Your task to perform on an android device: What time is it in Los Angeles? Image 0: 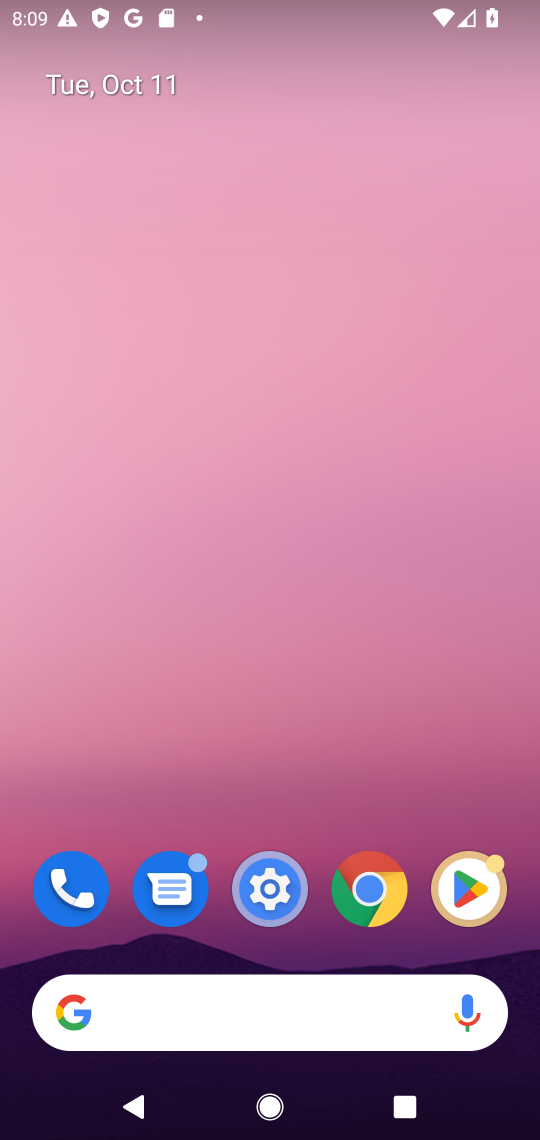
Step 0: click (263, 1008)
Your task to perform on an android device: What time is it in Los Angeles? Image 1: 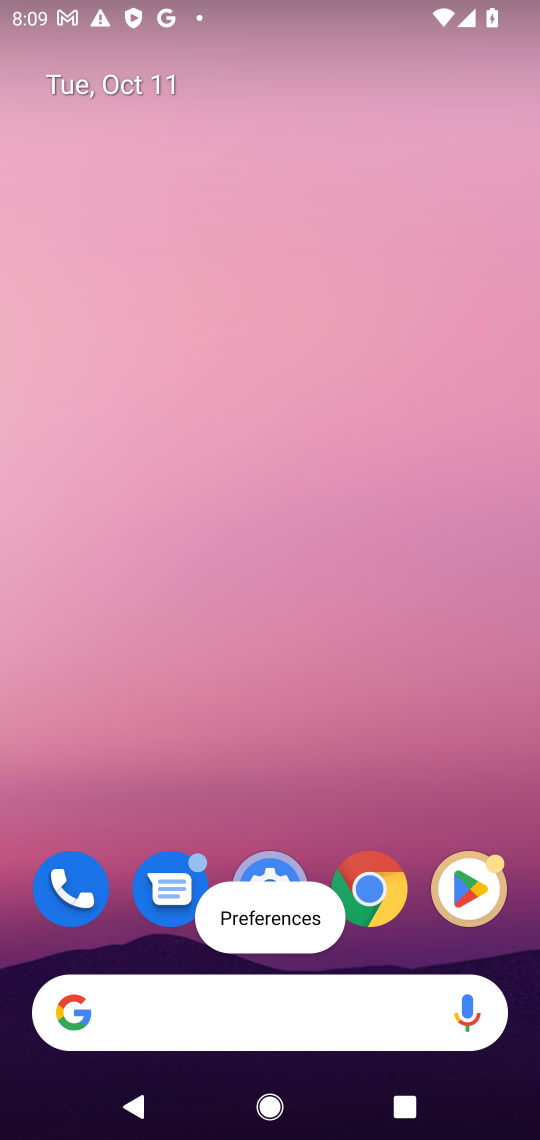
Step 1: click (145, 1053)
Your task to perform on an android device: What time is it in Los Angeles? Image 2: 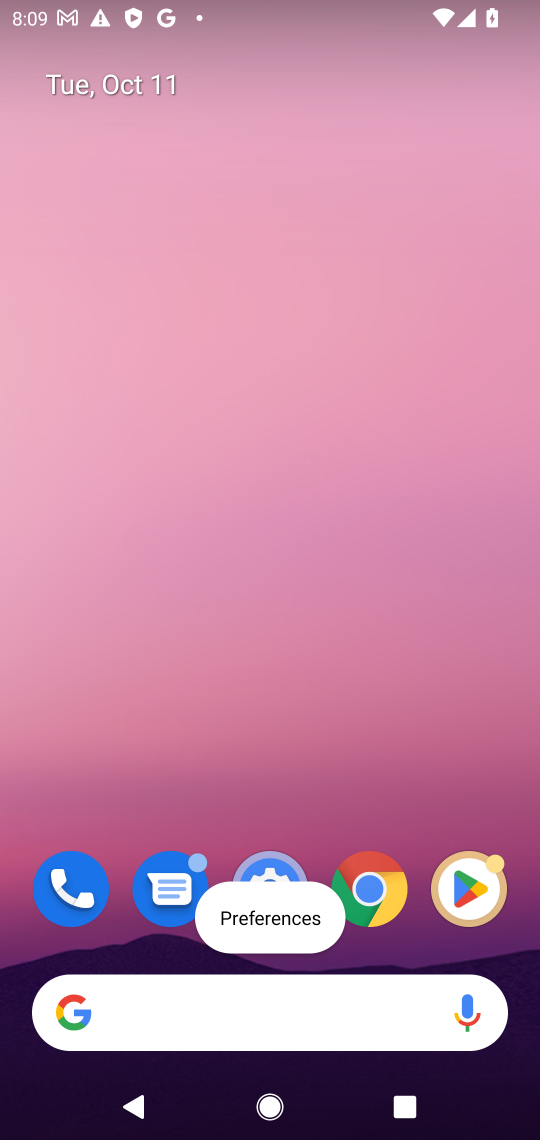
Step 2: click (152, 1023)
Your task to perform on an android device: What time is it in Los Angeles? Image 3: 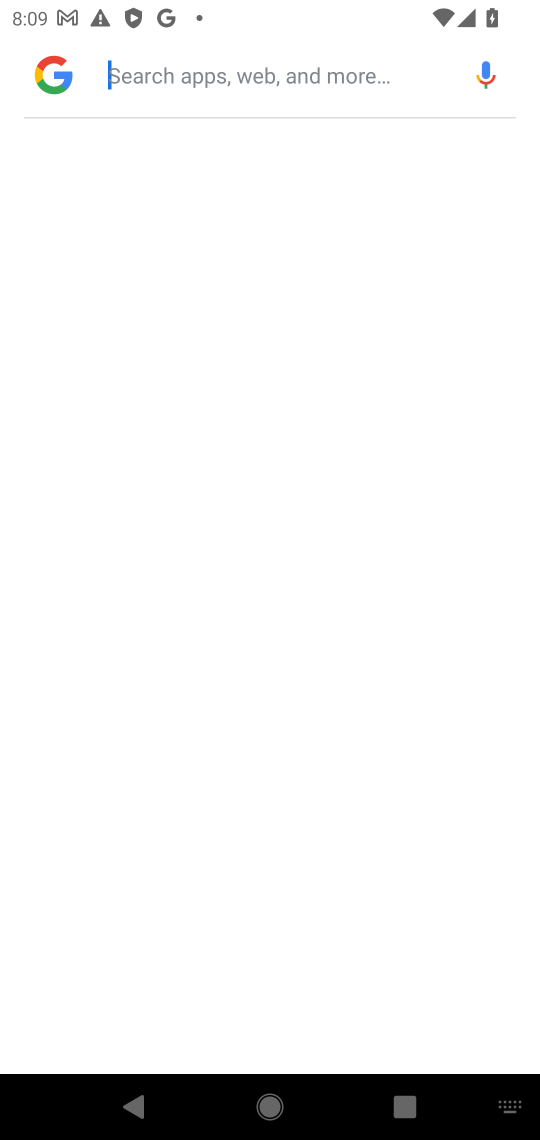
Step 3: click (247, 1021)
Your task to perform on an android device: What time is it in Los Angeles? Image 4: 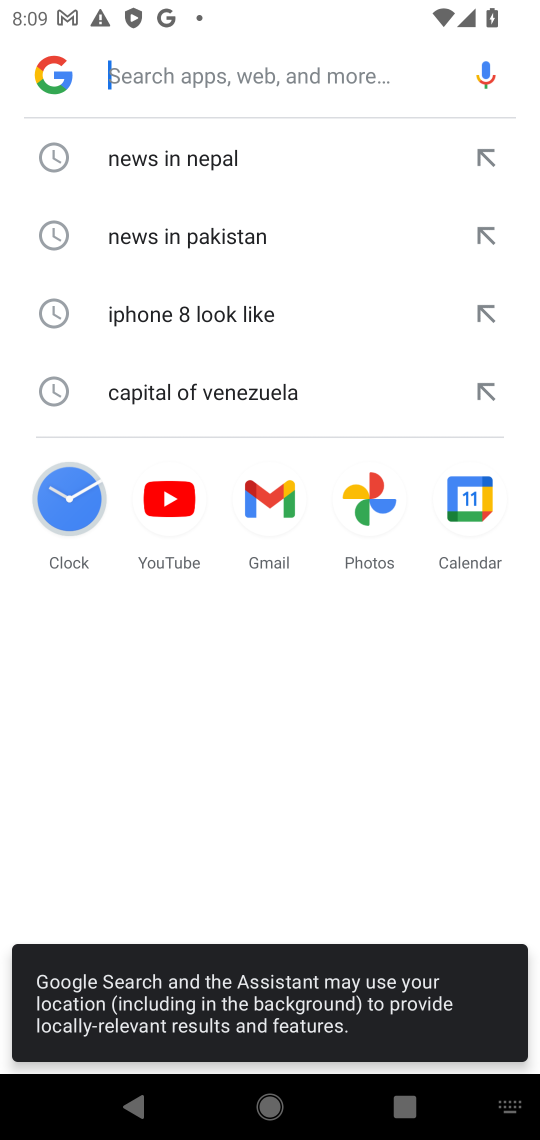
Step 4: click (192, 92)
Your task to perform on an android device: What time is it in Los Angeles? Image 5: 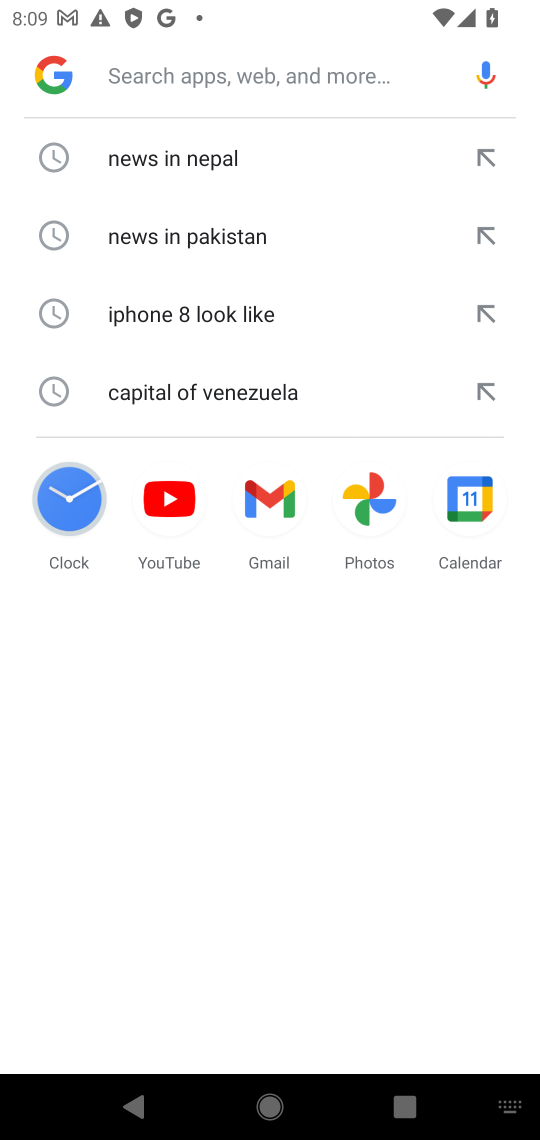
Step 5: type "What time is it in Los Angeles?"
Your task to perform on an android device: What time is it in Los Angeles? Image 6: 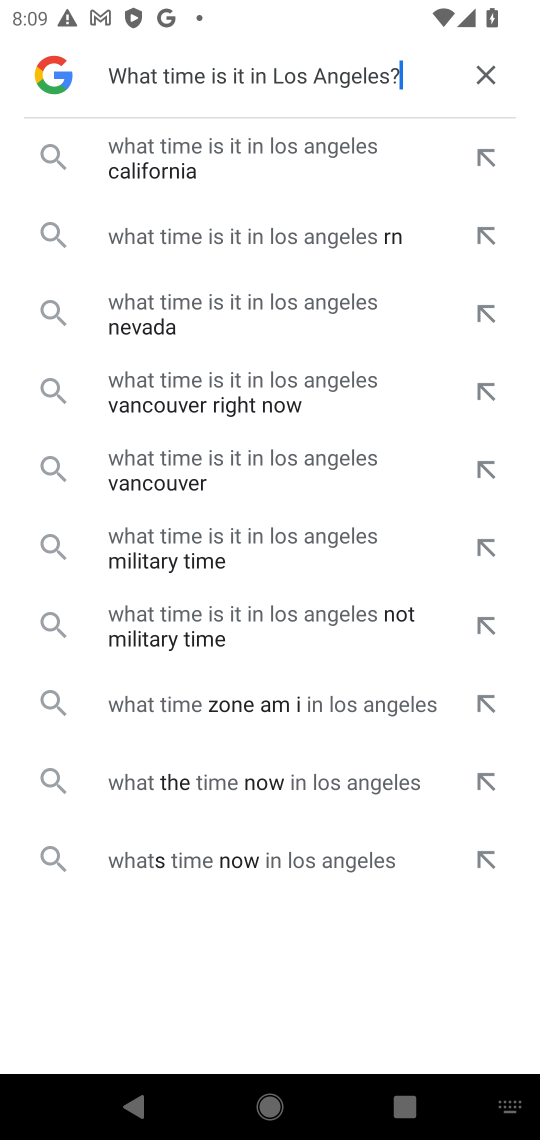
Step 6: click (252, 161)
Your task to perform on an android device: What time is it in Los Angeles? Image 7: 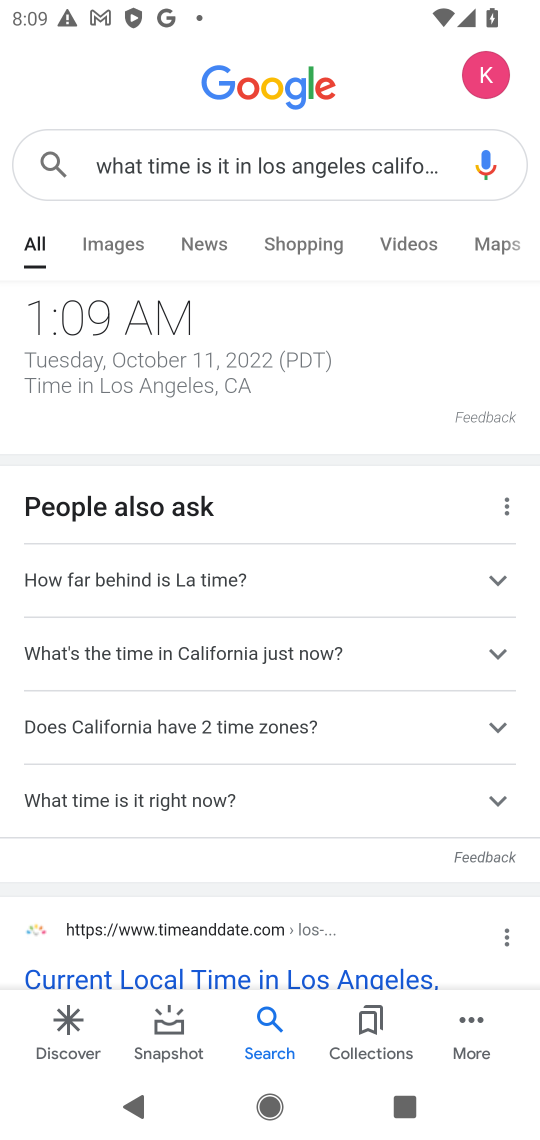
Step 7: task complete